Your task to perform on an android device: search for starred emails in the gmail app Image 0: 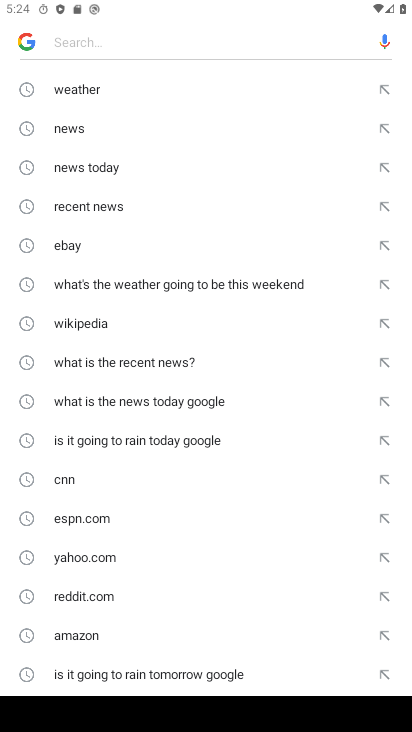
Step 0: press home button
Your task to perform on an android device: search for starred emails in the gmail app Image 1: 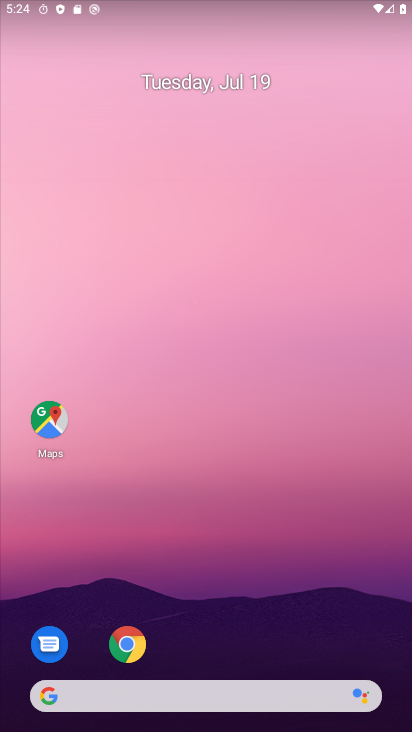
Step 1: drag from (265, 487) to (301, 210)
Your task to perform on an android device: search for starred emails in the gmail app Image 2: 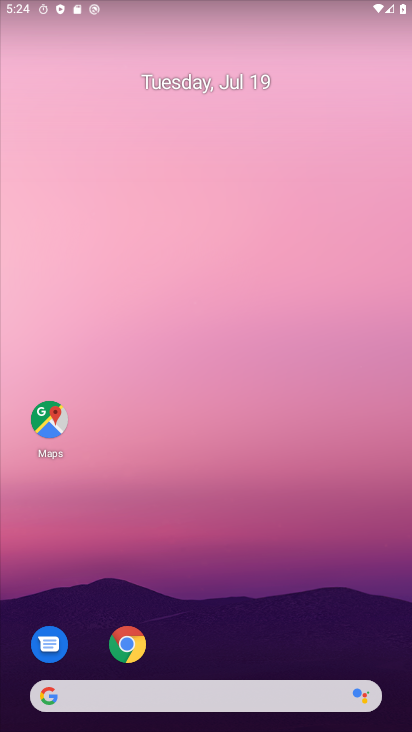
Step 2: drag from (256, 579) to (264, 213)
Your task to perform on an android device: search for starred emails in the gmail app Image 3: 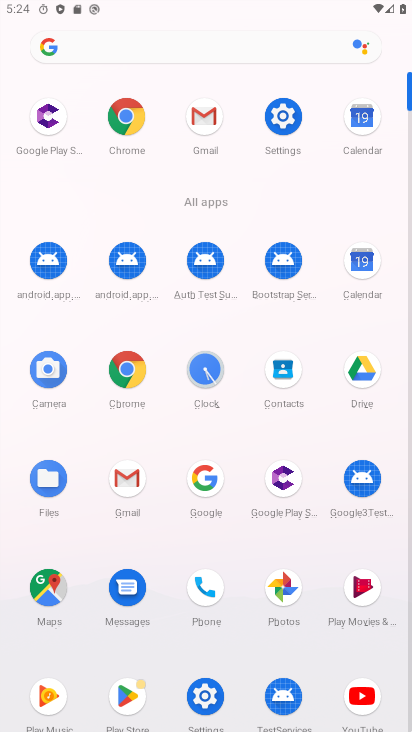
Step 3: click (125, 479)
Your task to perform on an android device: search for starred emails in the gmail app Image 4: 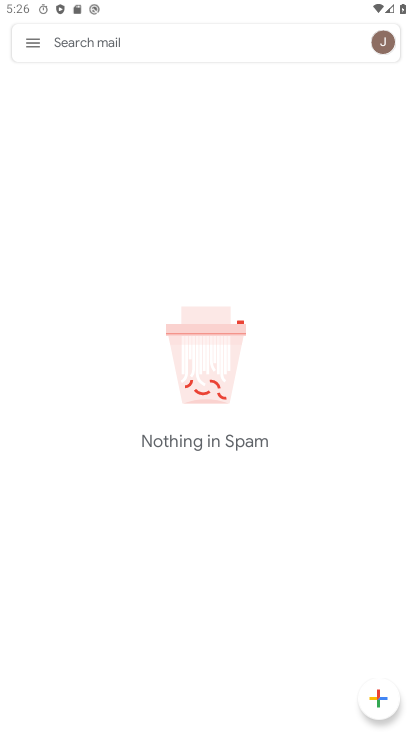
Step 4: click (40, 43)
Your task to perform on an android device: search for starred emails in the gmail app Image 5: 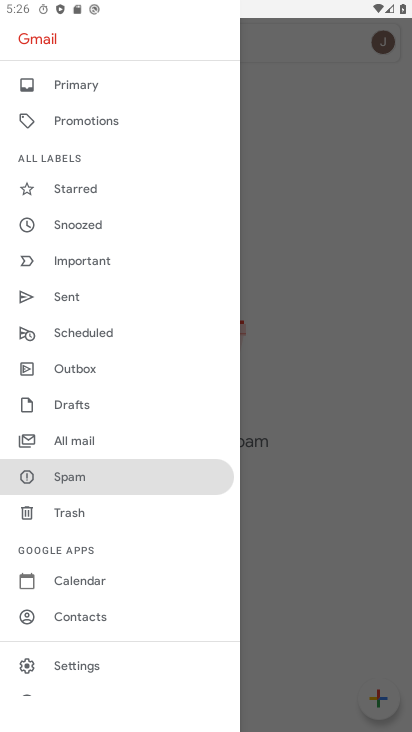
Step 5: click (84, 188)
Your task to perform on an android device: search for starred emails in the gmail app Image 6: 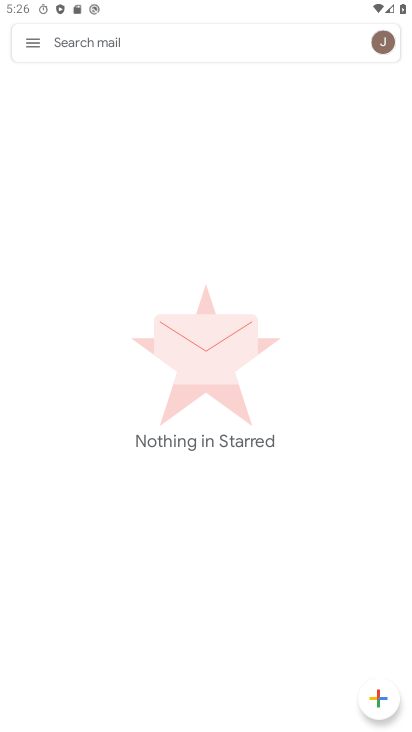
Step 6: task complete